Your task to perform on an android device: toggle notification dots Image 0: 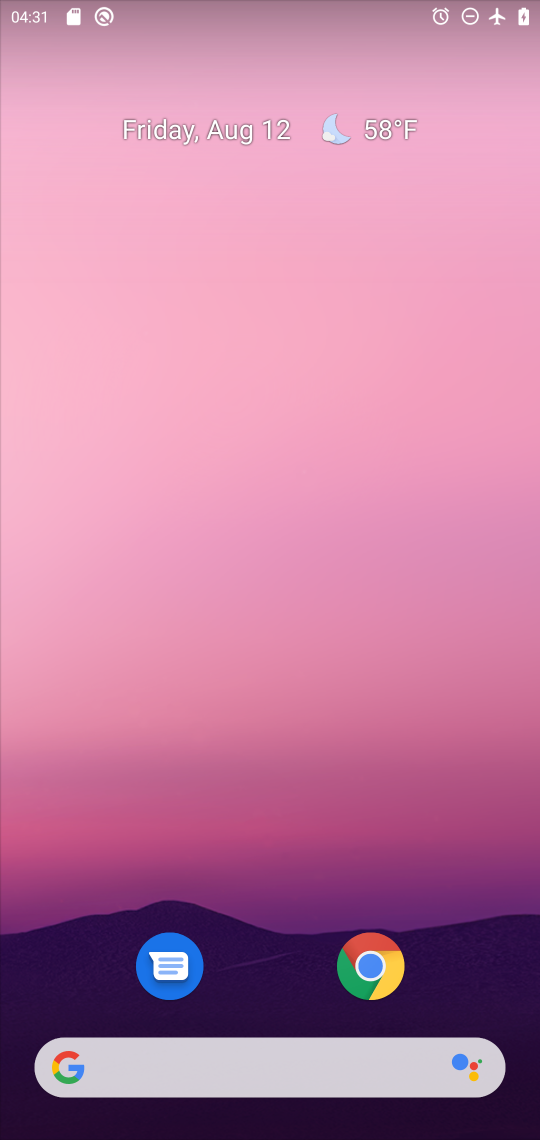
Step 0: drag from (239, 895) to (335, 14)
Your task to perform on an android device: toggle notification dots Image 1: 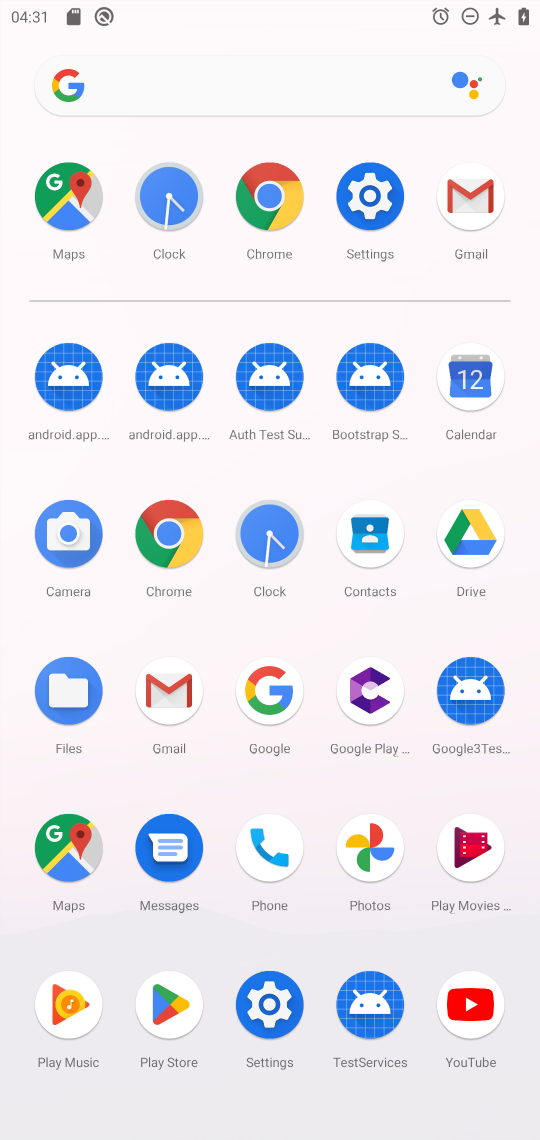
Step 1: click (376, 205)
Your task to perform on an android device: toggle notification dots Image 2: 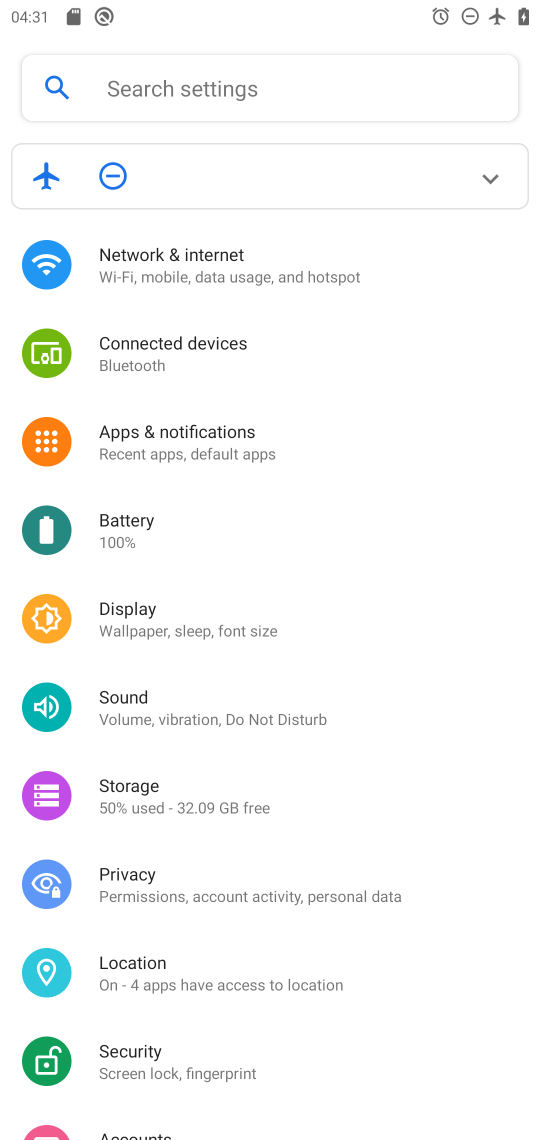
Step 2: click (168, 431)
Your task to perform on an android device: toggle notification dots Image 3: 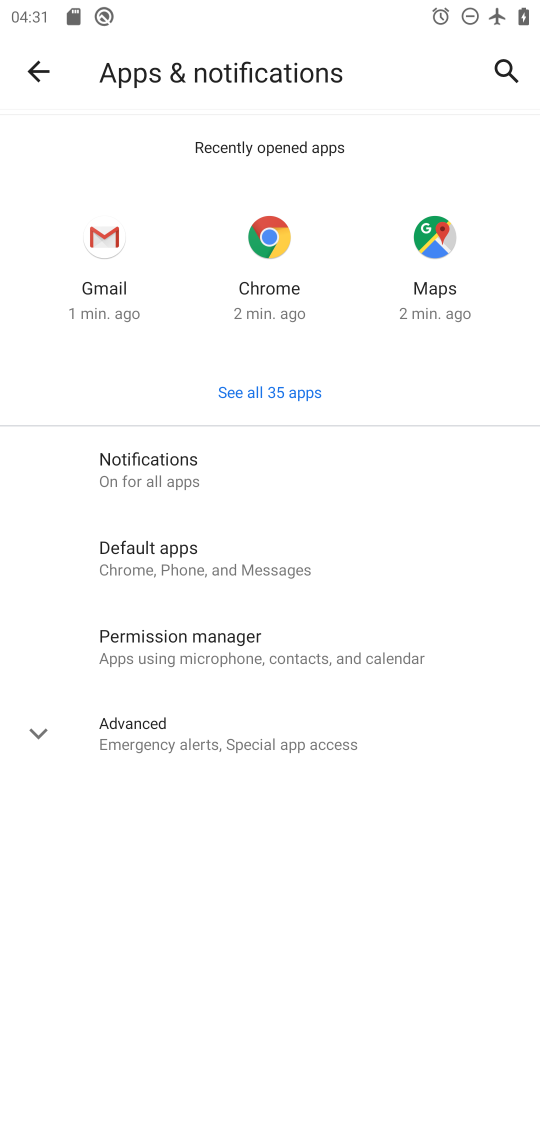
Step 3: click (195, 478)
Your task to perform on an android device: toggle notification dots Image 4: 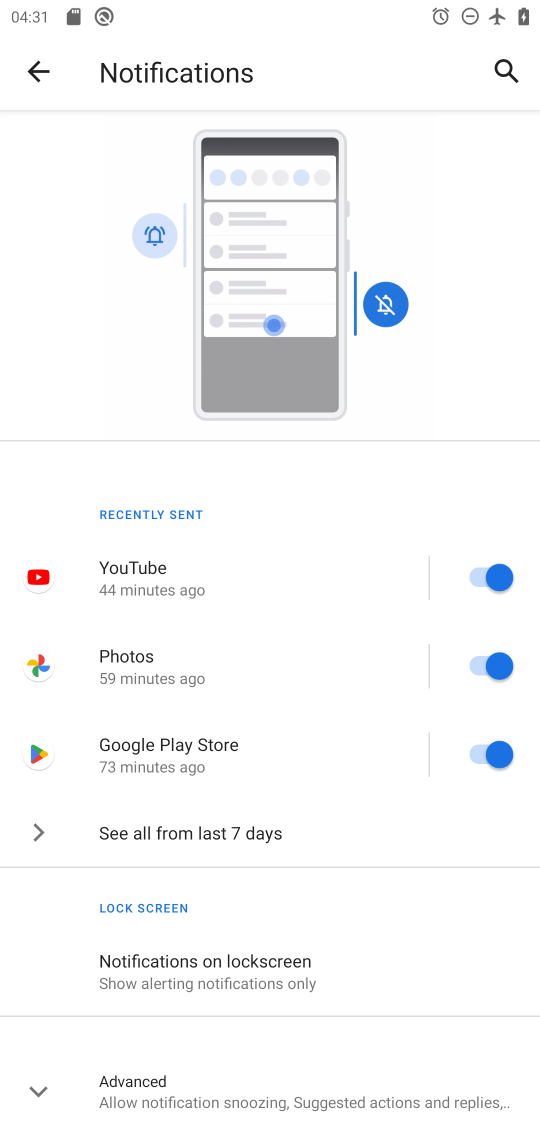
Step 4: drag from (281, 929) to (319, 167)
Your task to perform on an android device: toggle notification dots Image 5: 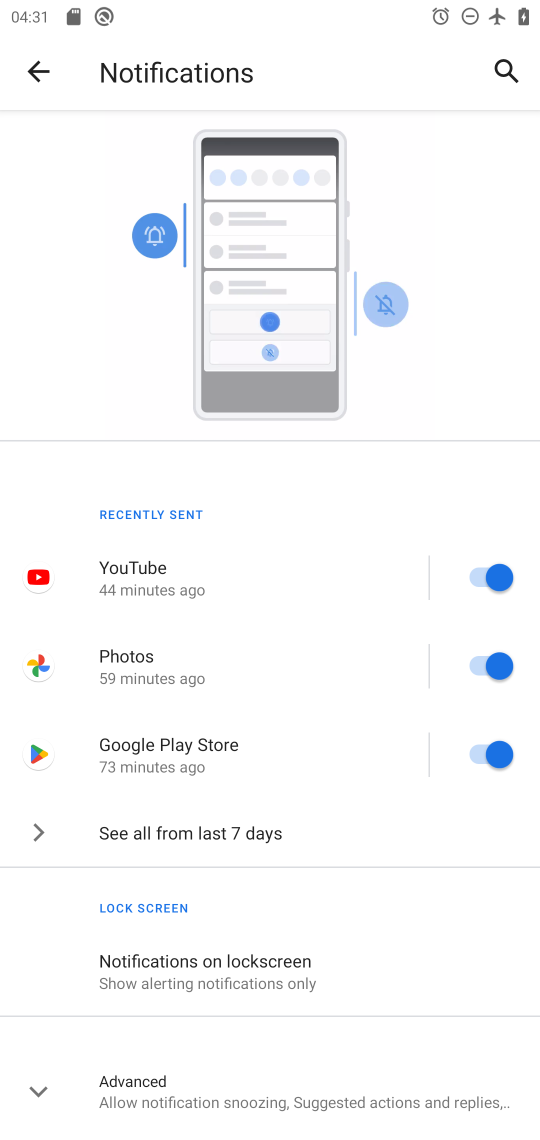
Step 5: click (185, 1104)
Your task to perform on an android device: toggle notification dots Image 6: 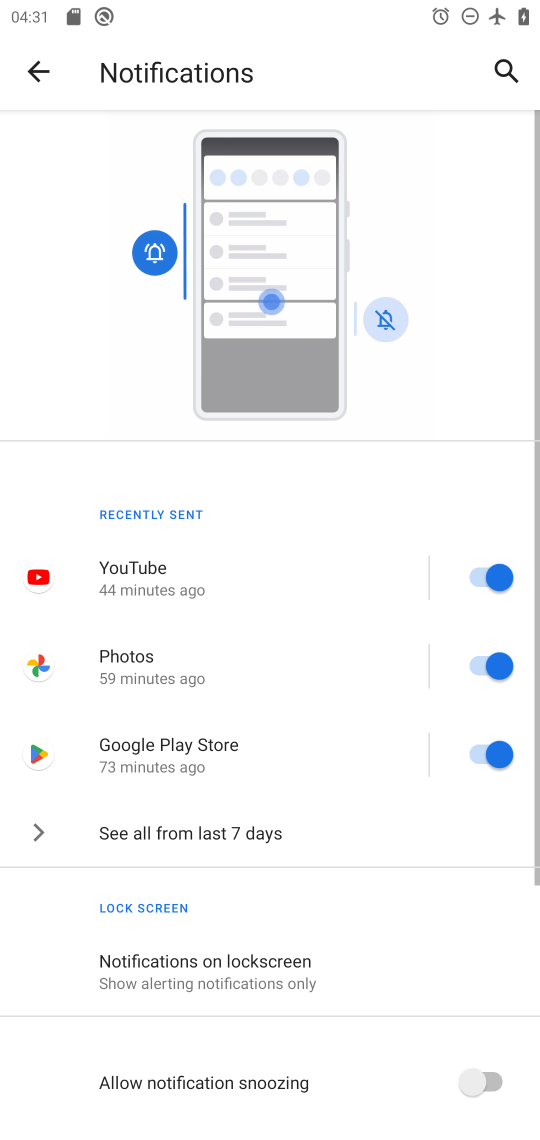
Step 6: drag from (367, 1046) to (320, 294)
Your task to perform on an android device: toggle notification dots Image 7: 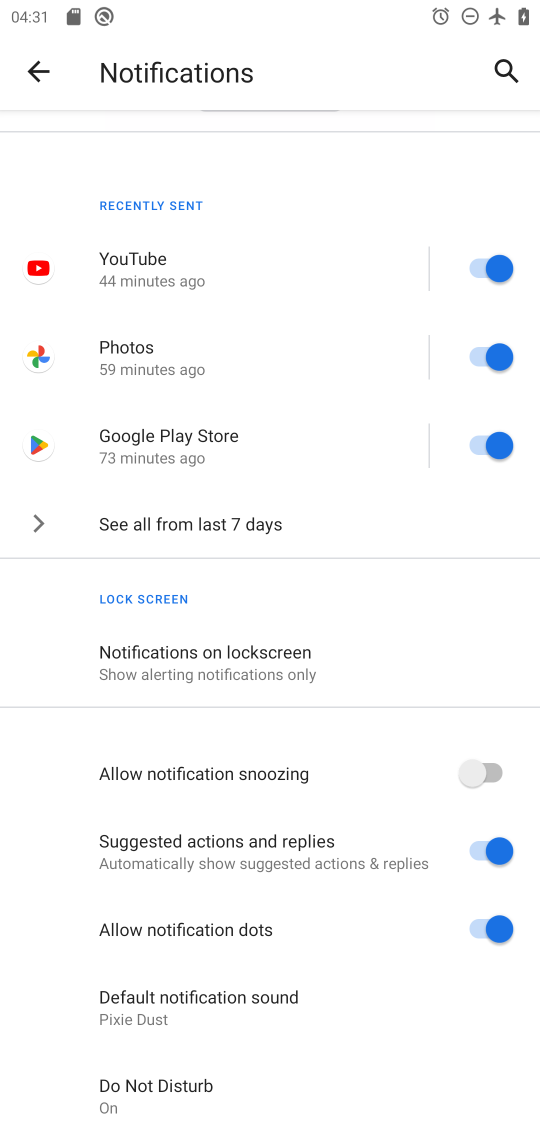
Step 7: click (491, 933)
Your task to perform on an android device: toggle notification dots Image 8: 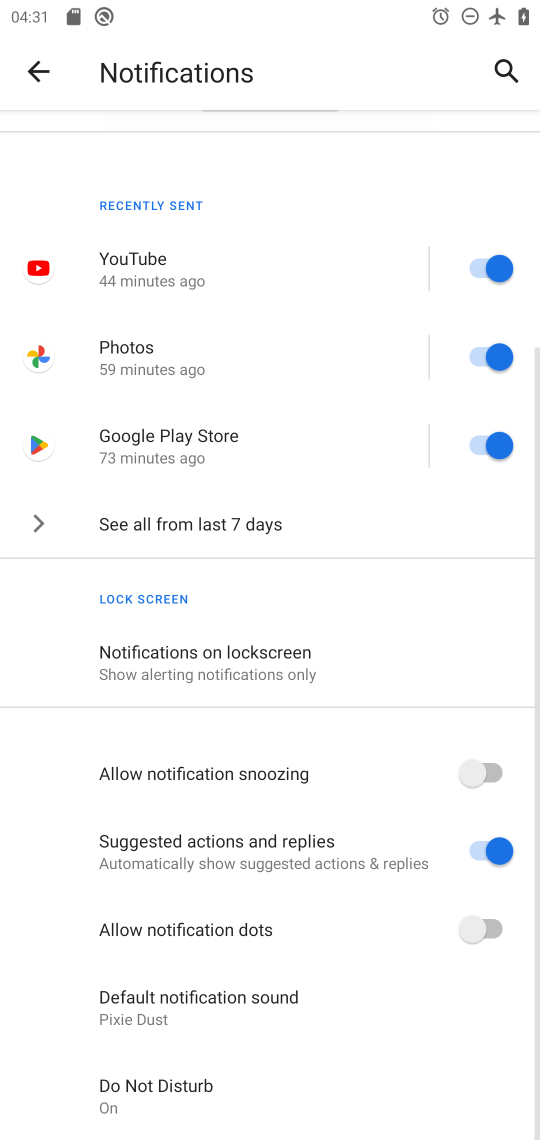
Step 8: task complete